Your task to perform on an android device: Go to CNN.com Image 0: 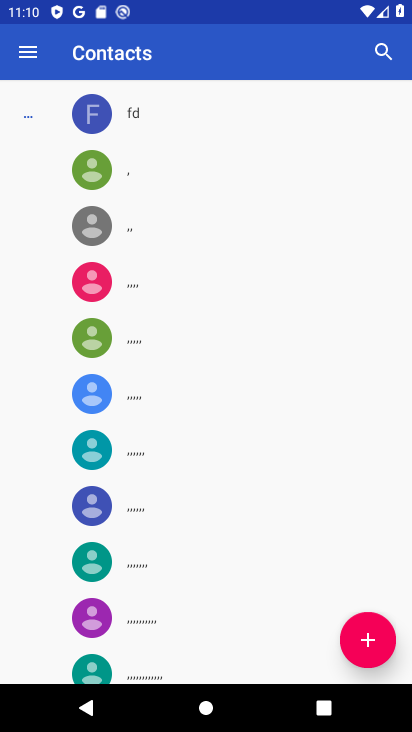
Step 0: press home button
Your task to perform on an android device: Go to CNN.com Image 1: 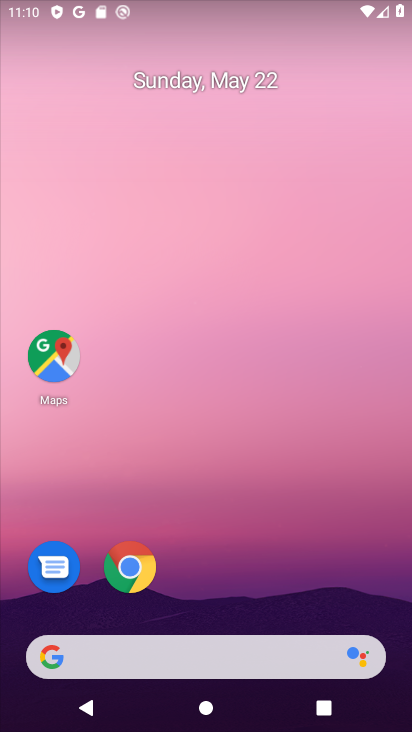
Step 1: click (230, 646)
Your task to perform on an android device: Go to CNN.com Image 2: 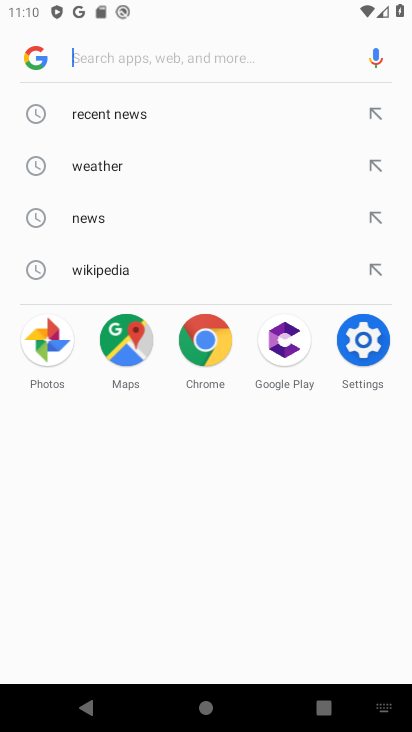
Step 2: type "cnn.com"
Your task to perform on an android device: Go to CNN.com Image 3: 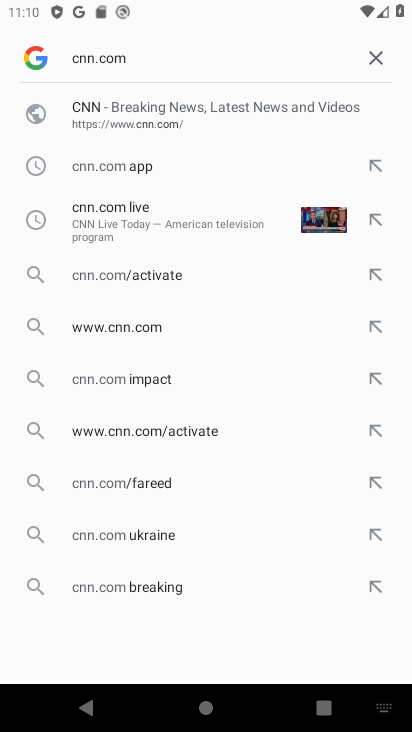
Step 3: click (104, 160)
Your task to perform on an android device: Go to CNN.com Image 4: 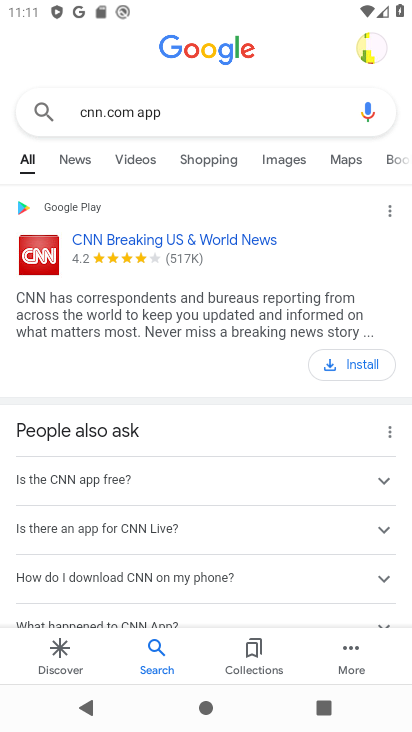
Step 4: click (135, 108)
Your task to perform on an android device: Go to CNN.com Image 5: 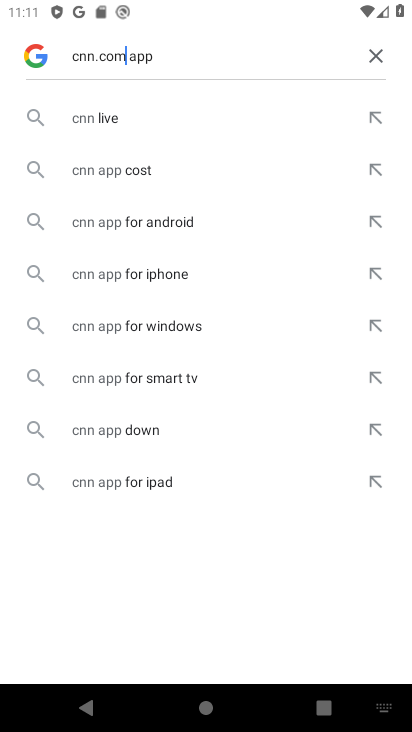
Step 5: press back button
Your task to perform on an android device: Go to CNN.com Image 6: 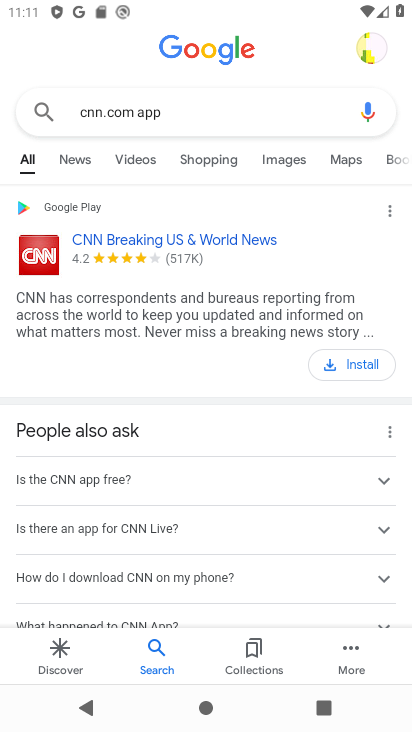
Step 6: click (223, 85)
Your task to perform on an android device: Go to CNN.com Image 7: 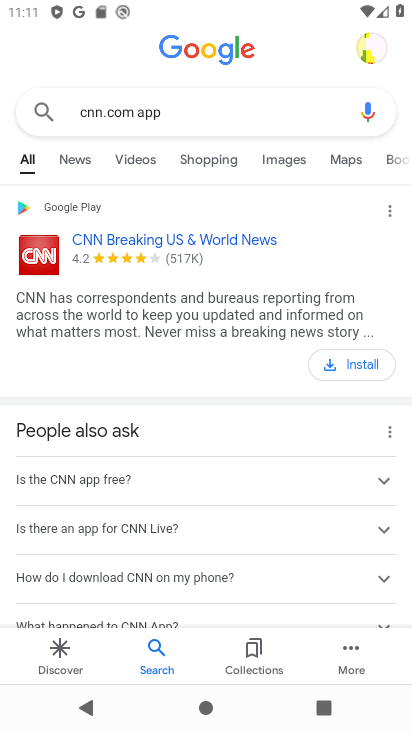
Step 7: drag from (221, 461) to (216, 76)
Your task to perform on an android device: Go to CNN.com Image 8: 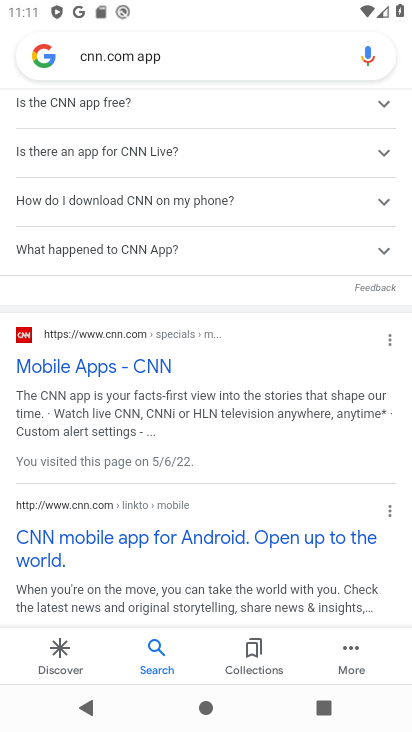
Step 8: drag from (143, 565) to (210, 176)
Your task to perform on an android device: Go to CNN.com Image 9: 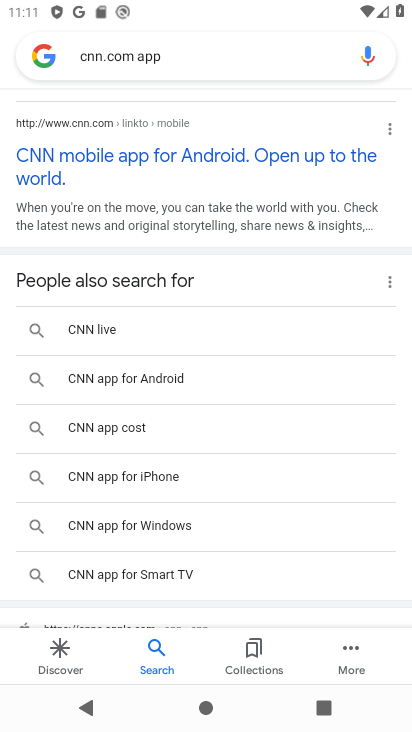
Step 9: click (180, 328)
Your task to perform on an android device: Go to CNN.com Image 10: 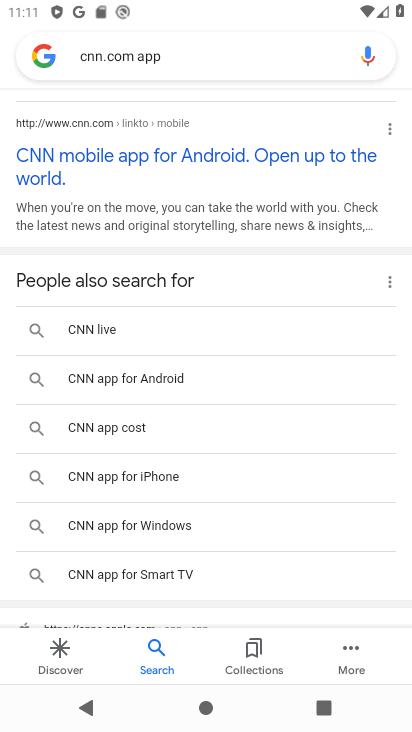
Step 10: click (73, 332)
Your task to perform on an android device: Go to CNN.com Image 11: 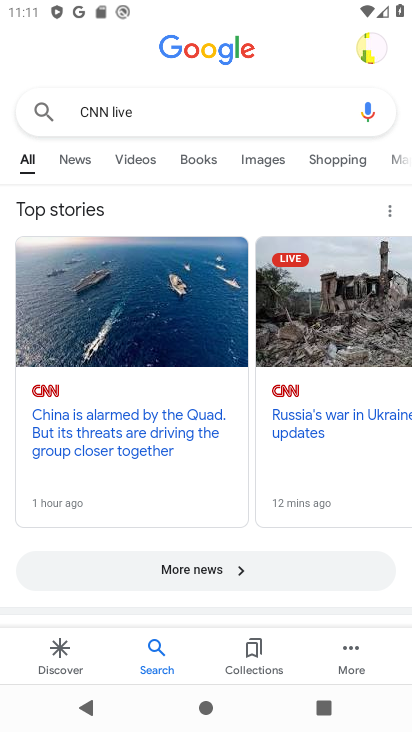
Step 11: click (172, 413)
Your task to perform on an android device: Go to CNN.com Image 12: 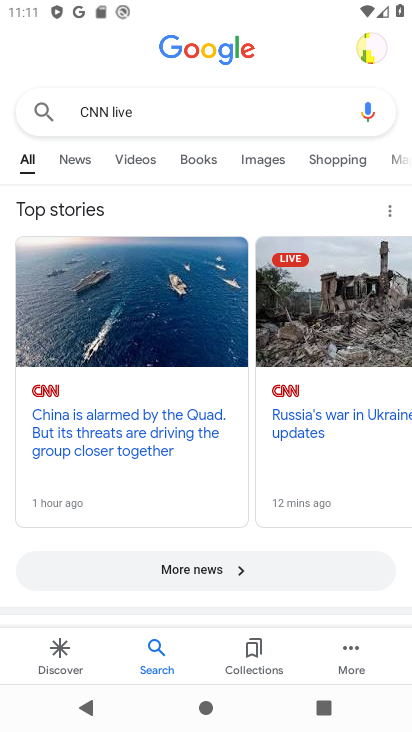
Step 12: click (123, 435)
Your task to perform on an android device: Go to CNN.com Image 13: 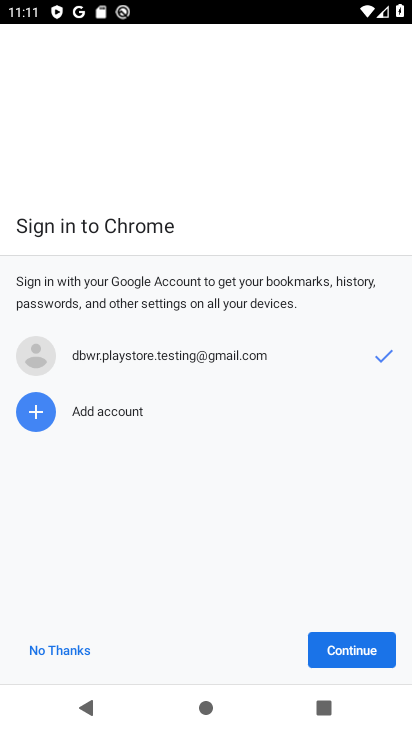
Step 13: click (353, 651)
Your task to perform on an android device: Go to CNN.com Image 14: 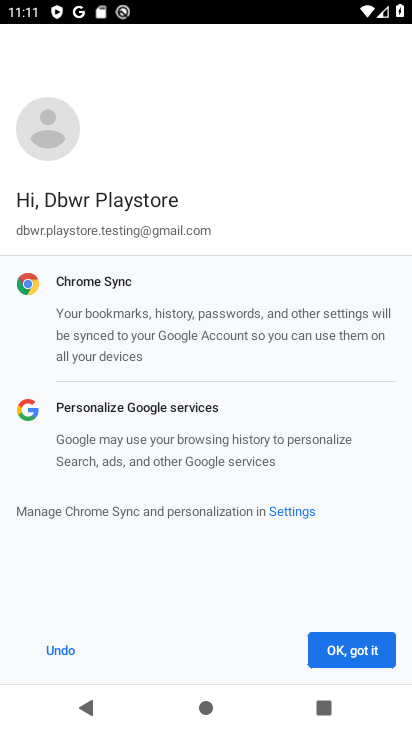
Step 14: click (353, 651)
Your task to perform on an android device: Go to CNN.com Image 15: 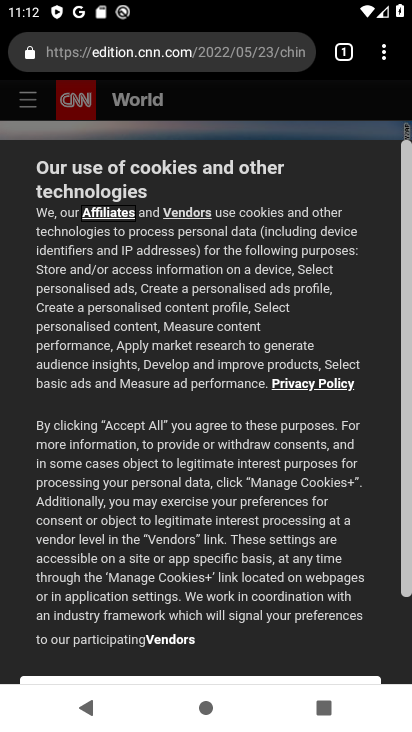
Step 15: task complete